Your task to perform on an android device: Open the phone app and click the voicemail tab. Image 0: 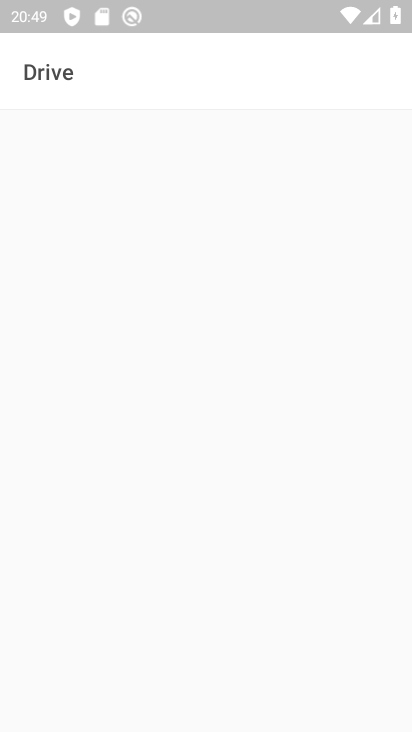
Step 0: press home button
Your task to perform on an android device: Open the phone app and click the voicemail tab. Image 1: 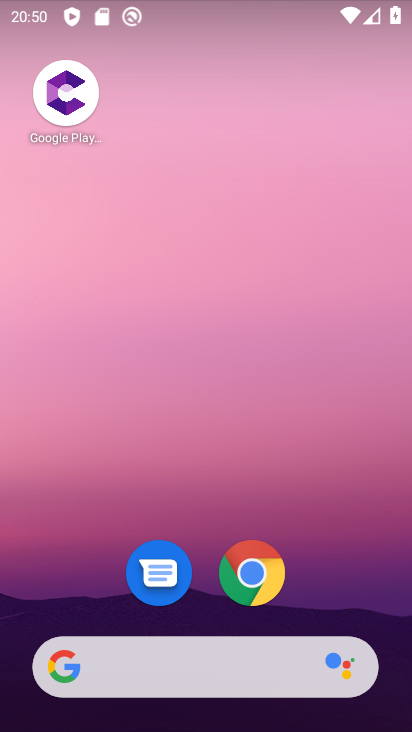
Step 1: drag from (338, 581) to (303, 50)
Your task to perform on an android device: Open the phone app and click the voicemail tab. Image 2: 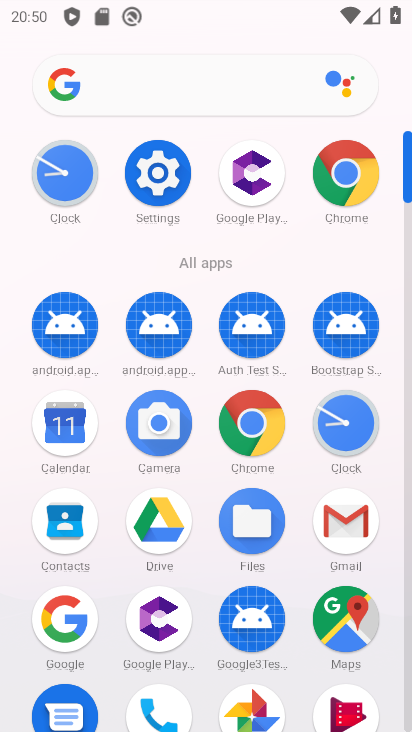
Step 2: click (165, 706)
Your task to perform on an android device: Open the phone app and click the voicemail tab. Image 3: 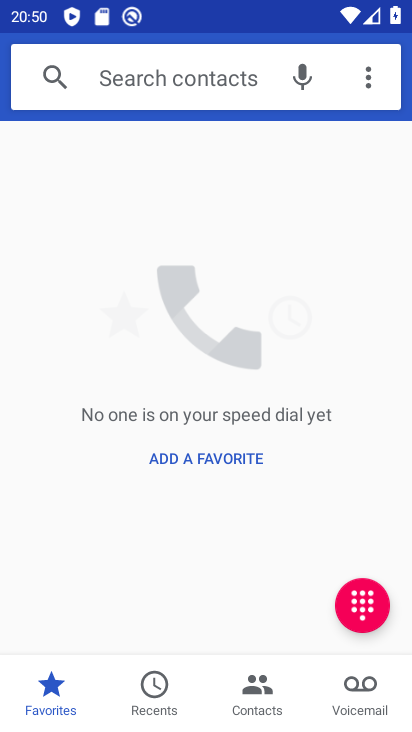
Step 3: click (349, 696)
Your task to perform on an android device: Open the phone app and click the voicemail tab. Image 4: 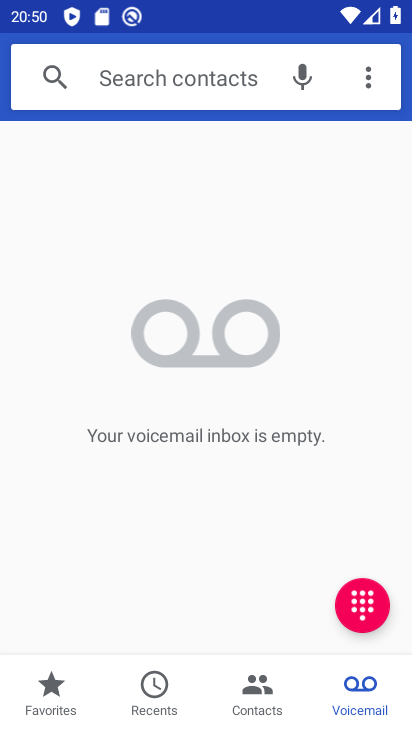
Step 4: task complete